Your task to perform on an android device: show emergency info Image 0: 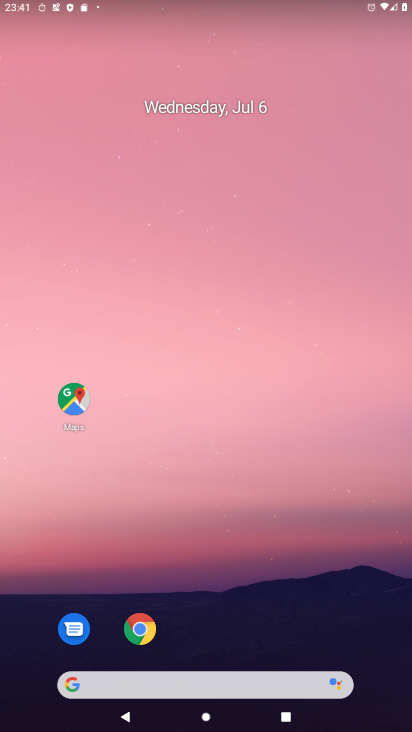
Step 0: drag from (198, 505) to (173, 24)
Your task to perform on an android device: show emergency info Image 1: 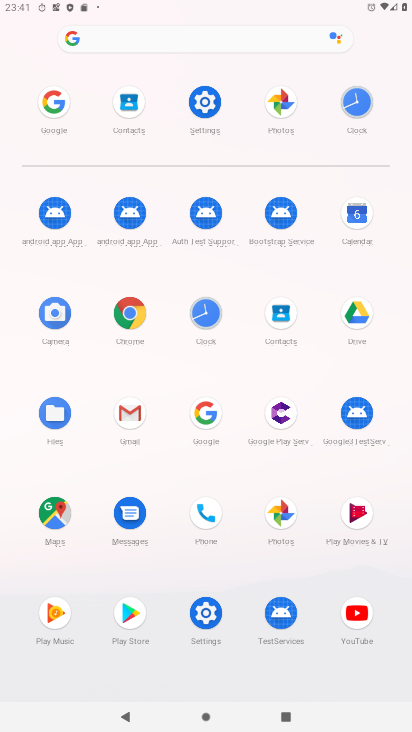
Step 1: click (204, 105)
Your task to perform on an android device: show emergency info Image 2: 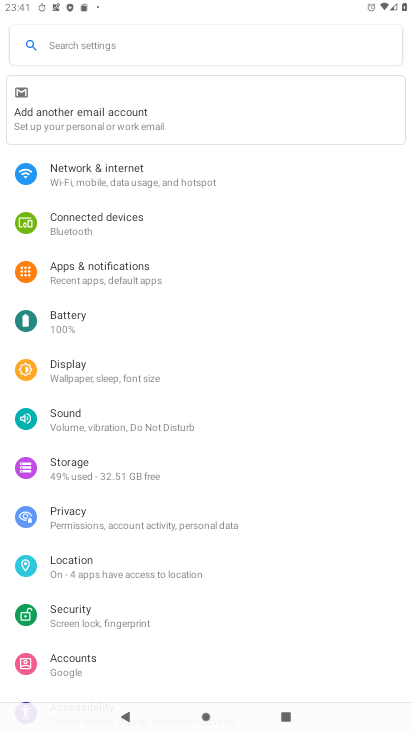
Step 2: drag from (246, 688) to (264, 42)
Your task to perform on an android device: show emergency info Image 3: 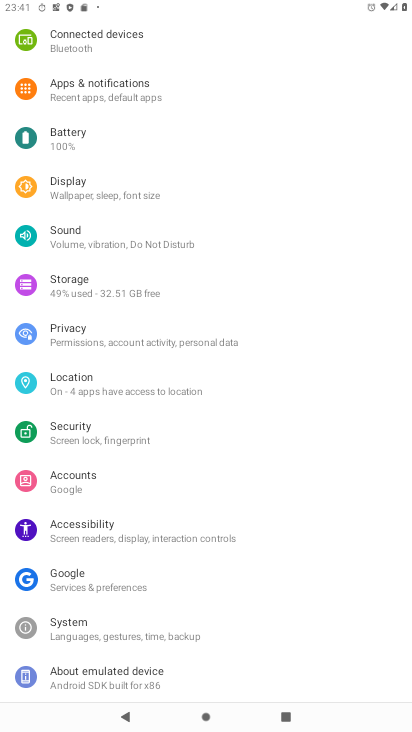
Step 3: click (112, 668)
Your task to perform on an android device: show emergency info Image 4: 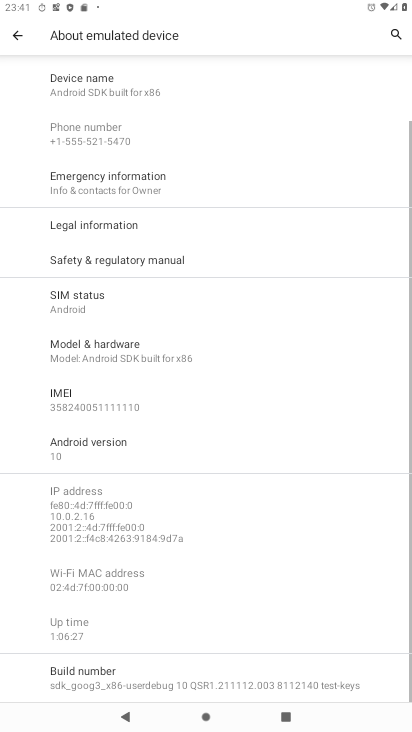
Step 4: click (123, 180)
Your task to perform on an android device: show emergency info Image 5: 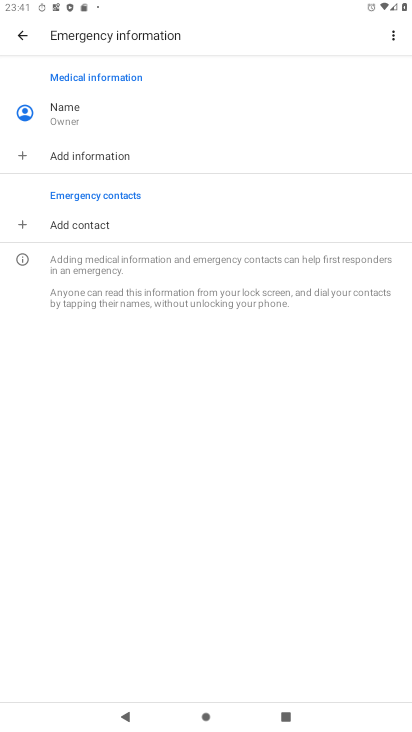
Step 5: task complete